Your task to perform on an android device: change alarm snooze length Image 0: 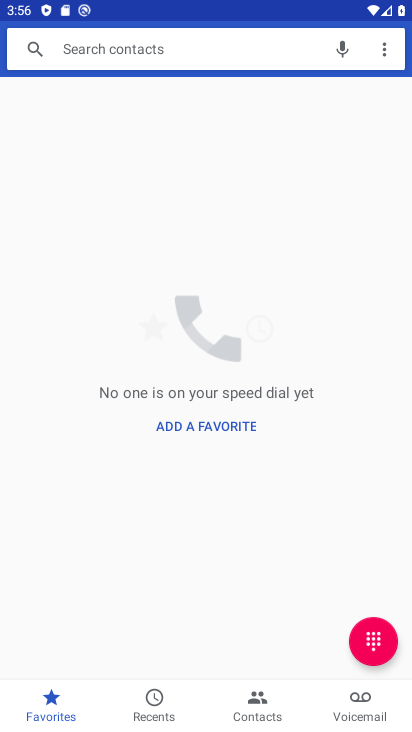
Step 0: press home button
Your task to perform on an android device: change alarm snooze length Image 1: 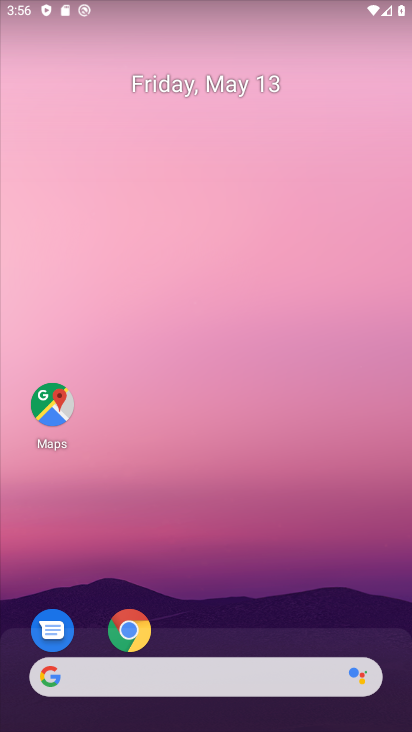
Step 1: drag from (197, 727) to (197, 189)
Your task to perform on an android device: change alarm snooze length Image 2: 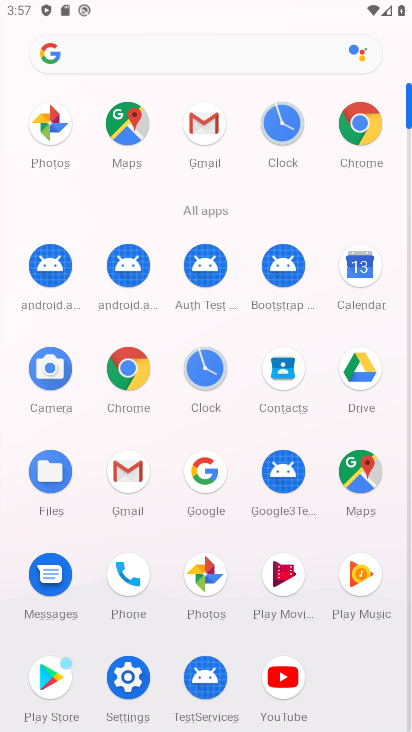
Step 2: click (206, 366)
Your task to perform on an android device: change alarm snooze length Image 3: 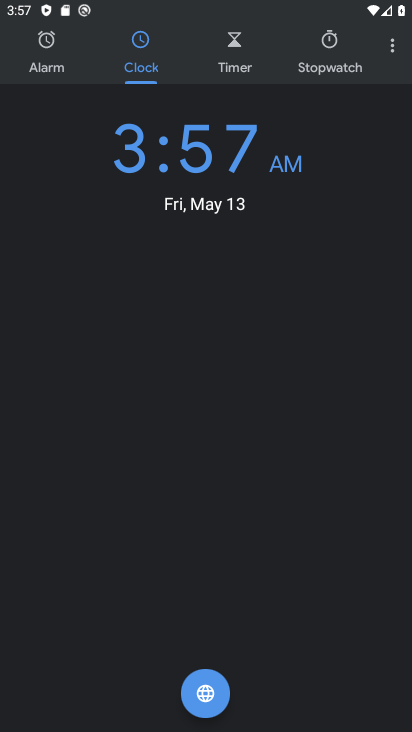
Step 3: click (392, 49)
Your task to perform on an android device: change alarm snooze length Image 4: 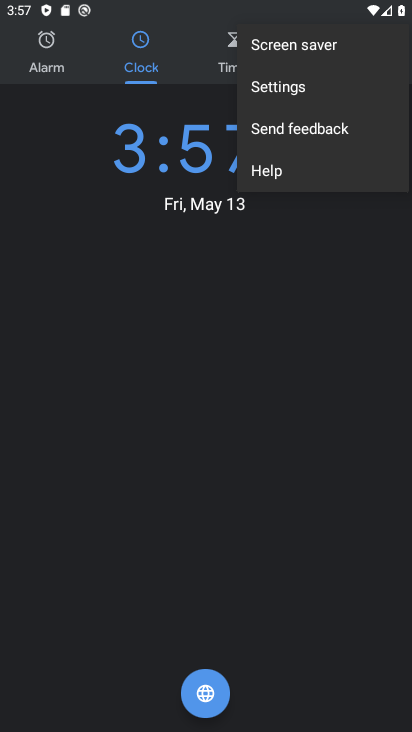
Step 4: click (286, 97)
Your task to perform on an android device: change alarm snooze length Image 5: 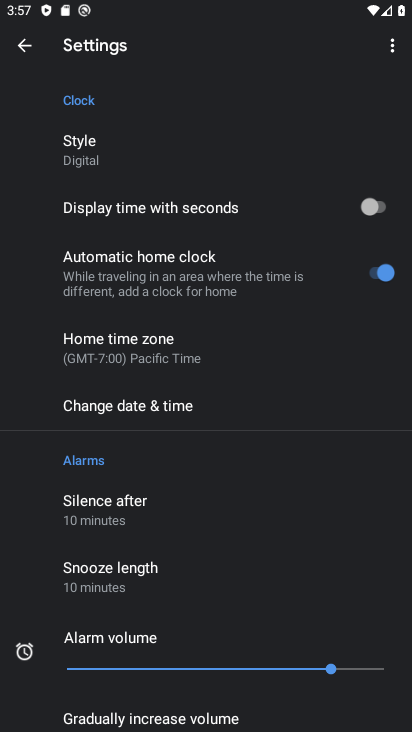
Step 5: click (133, 573)
Your task to perform on an android device: change alarm snooze length Image 6: 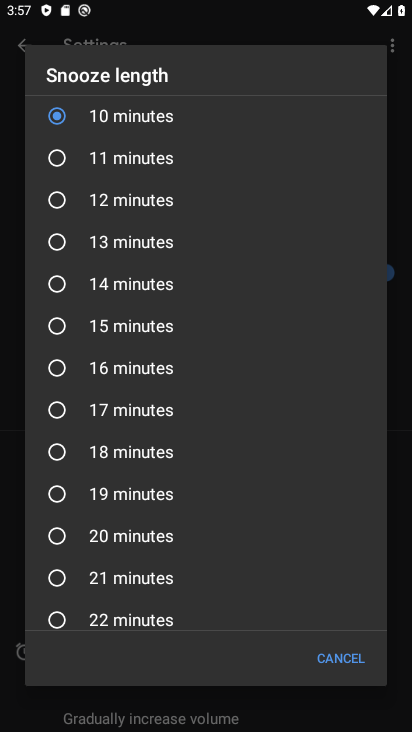
Step 6: click (56, 622)
Your task to perform on an android device: change alarm snooze length Image 7: 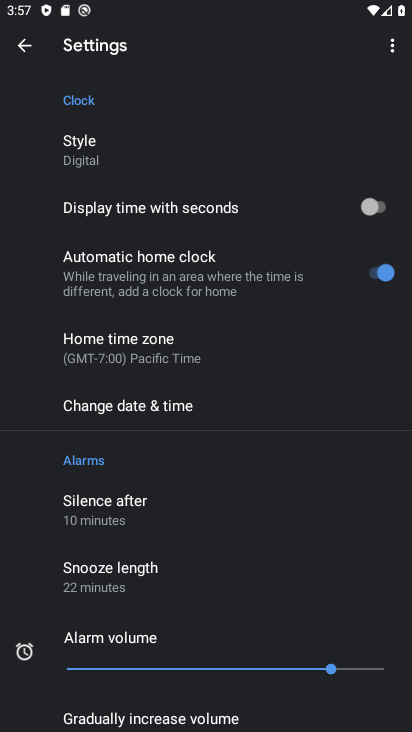
Step 7: task complete